Your task to perform on an android device: Search for the best rated wireless headphones on Amazon. Image 0: 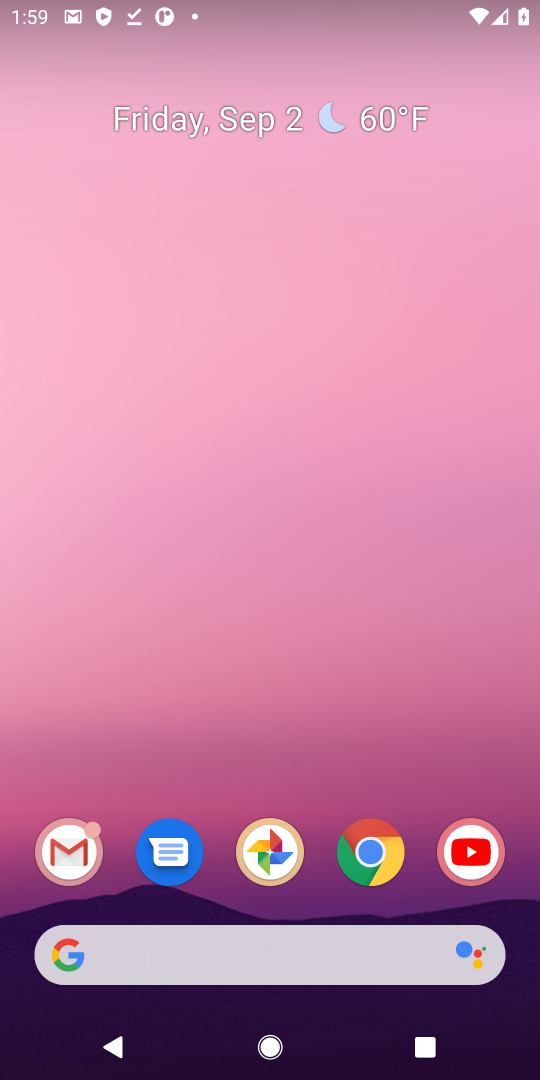
Step 0: drag from (369, 328) to (417, 1)
Your task to perform on an android device: Search for the best rated wireless headphones on Amazon. Image 1: 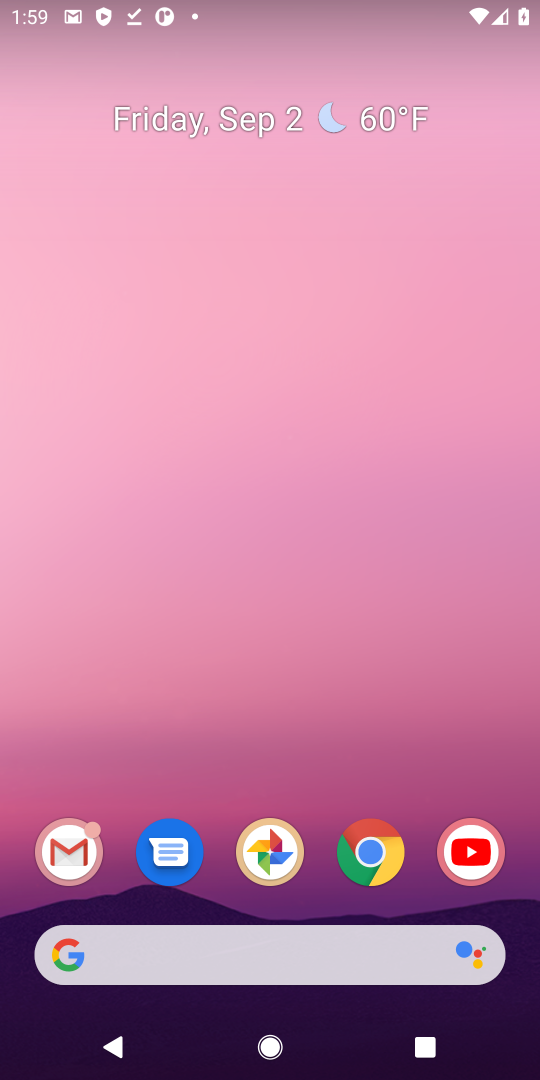
Step 1: click (476, 21)
Your task to perform on an android device: Search for the best rated wireless headphones on Amazon. Image 2: 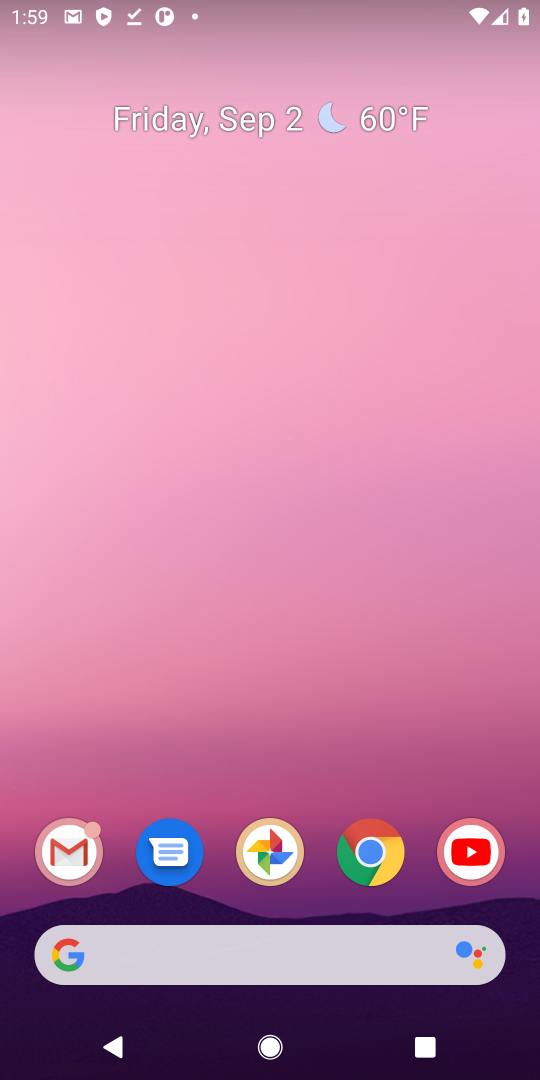
Step 2: drag from (286, 654) to (407, 2)
Your task to perform on an android device: Search for the best rated wireless headphones on Amazon. Image 3: 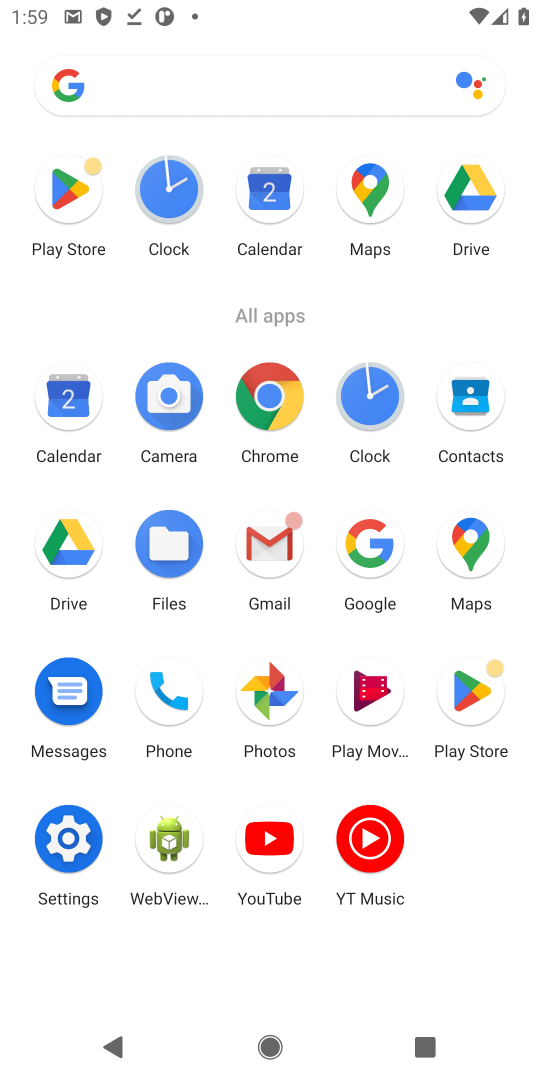
Step 3: click (266, 392)
Your task to perform on an android device: Search for the best rated wireless headphones on Amazon. Image 4: 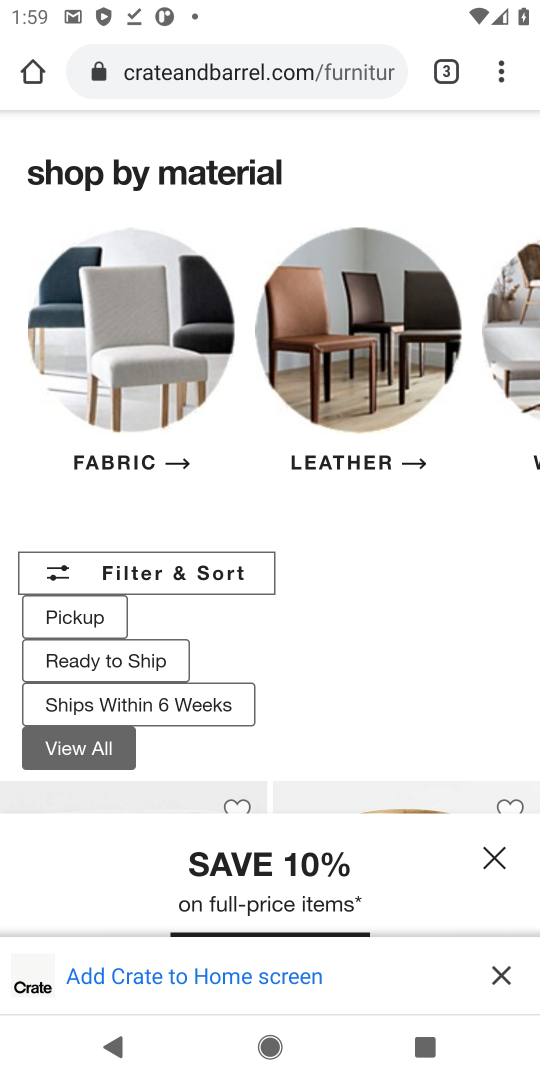
Step 4: click (247, 66)
Your task to perform on an android device: Search for the best rated wireless headphones on Amazon. Image 5: 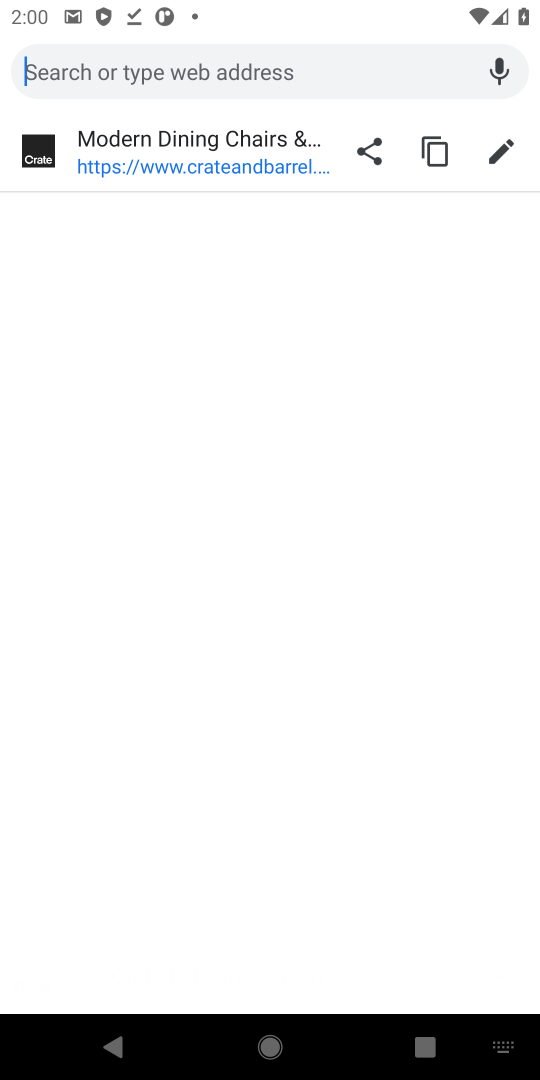
Step 5: type "best rated wireless headphones on Amazon"
Your task to perform on an android device: Search for the best rated wireless headphones on Amazon. Image 6: 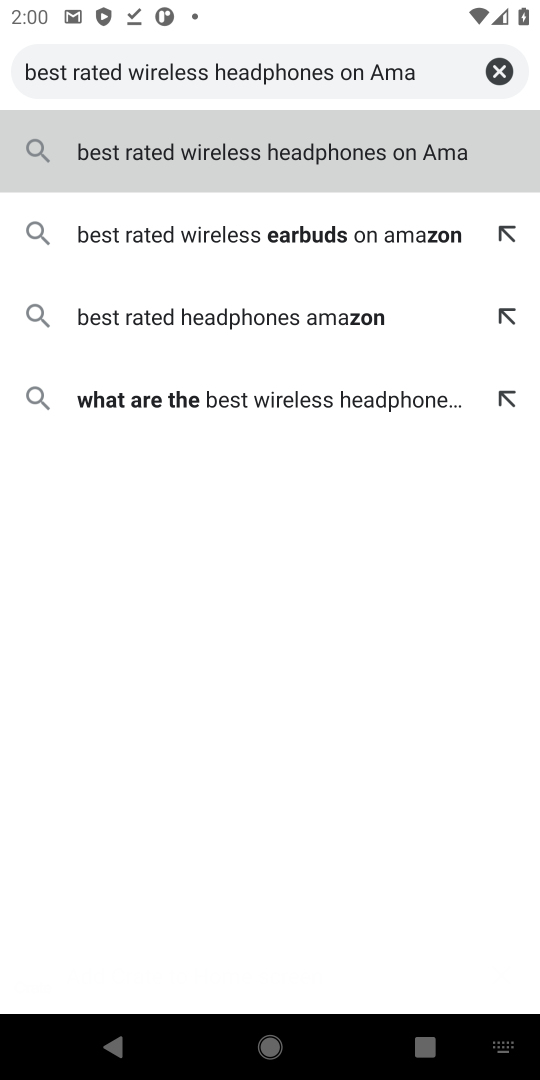
Step 6: press enter
Your task to perform on an android device: Search for the best rated wireless headphones on Amazon. Image 7: 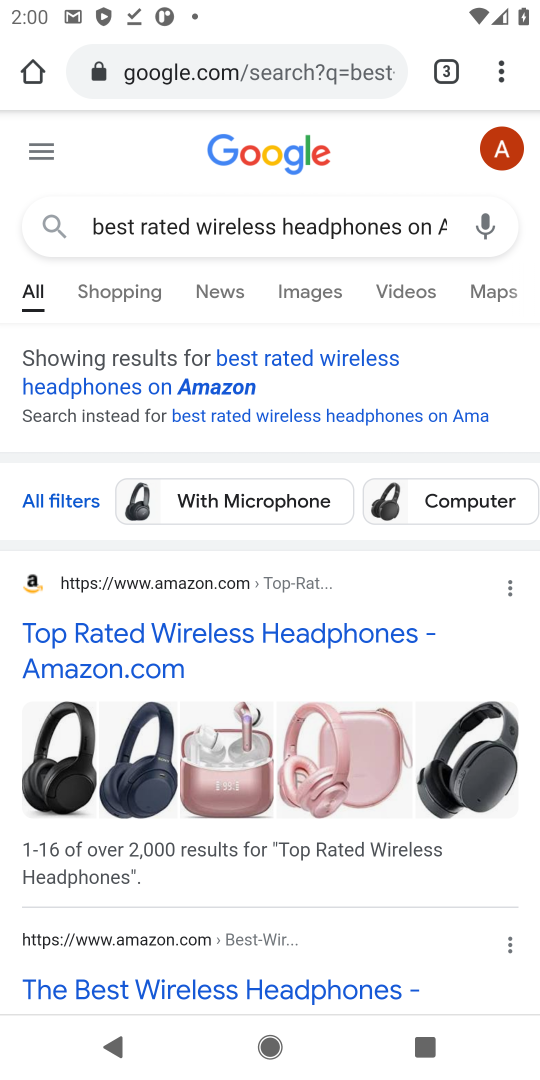
Step 7: drag from (355, 874) to (356, 386)
Your task to perform on an android device: Search for the best rated wireless headphones on Amazon. Image 8: 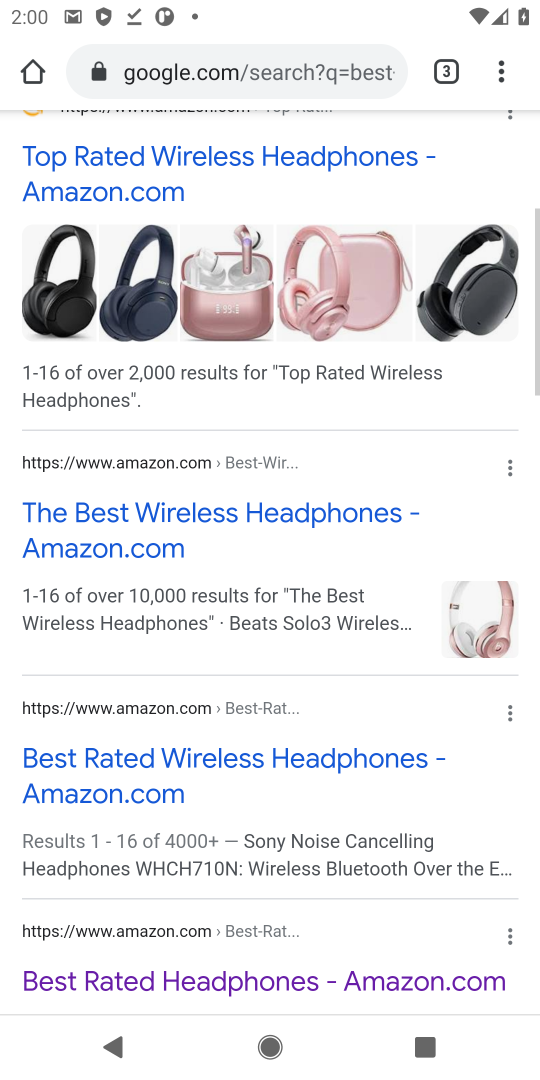
Step 8: click (243, 161)
Your task to perform on an android device: Search for the best rated wireless headphones on Amazon. Image 9: 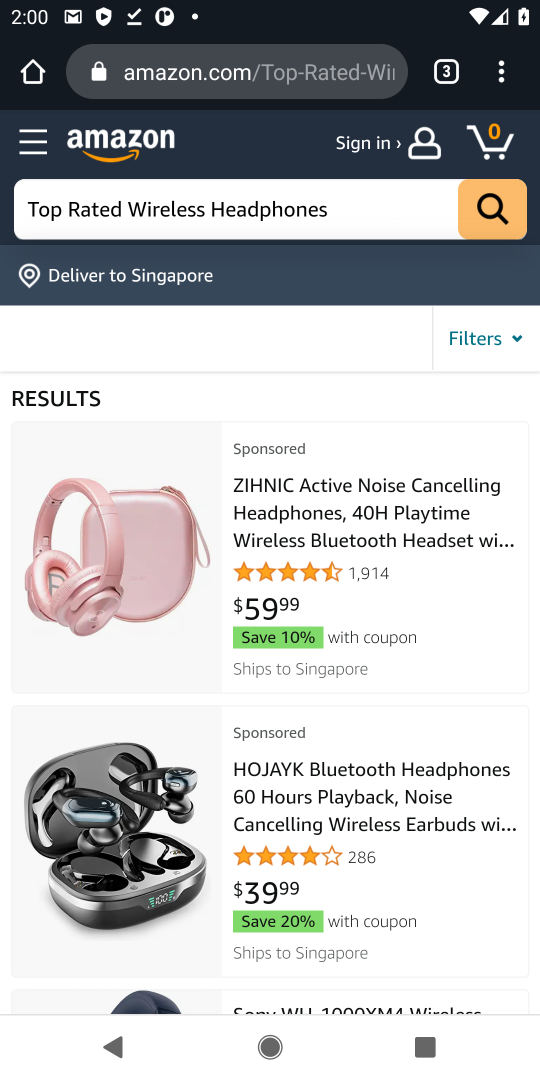
Step 9: task complete